Your task to perform on an android device: open chrome and create a bookmark for the current page Image 0: 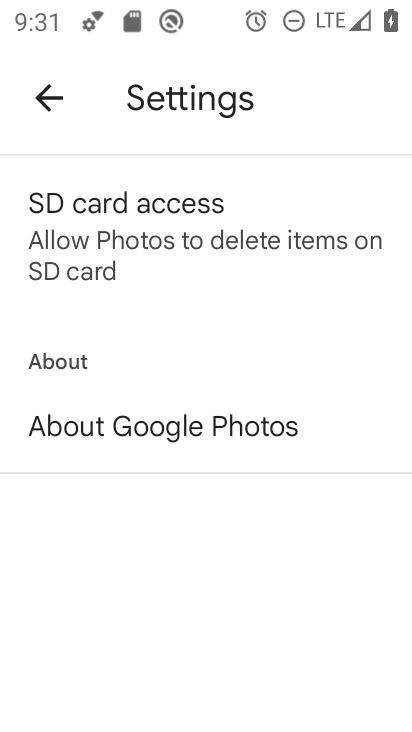
Step 0: press home button
Your task to perform on an android device: open chrome and create a bookmark for the current page Image 1: 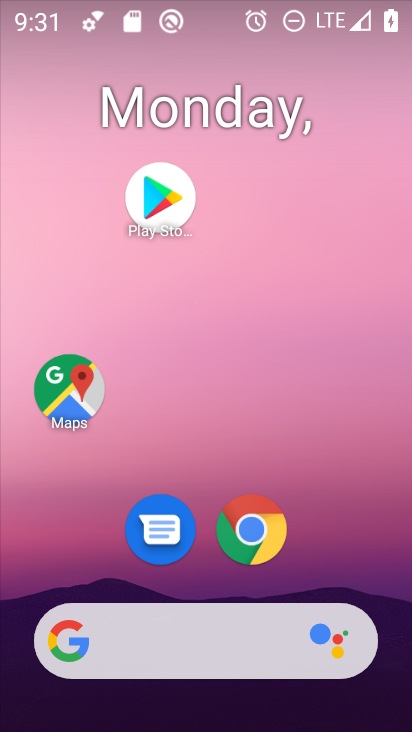
Step 1: click (263, 537)
Your task to perform on an android device: open chrome and create a bookmark for the current page Image 2: 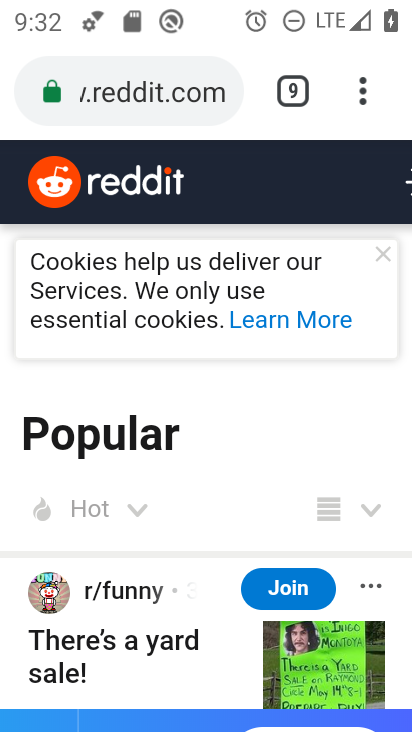
Step 2: click (359, 91)
Your task to perform on an android device: open chrome and create a bookmark for the current page Image 3: 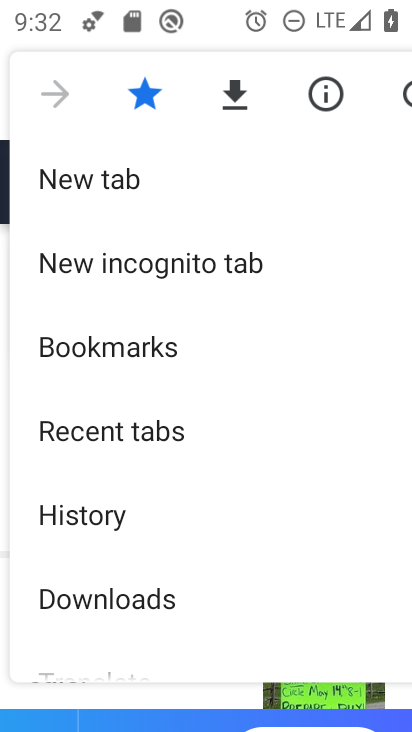
Step 3: task complete